Your task to perform on an android device: add a label to a message in the gmail app Image 0: 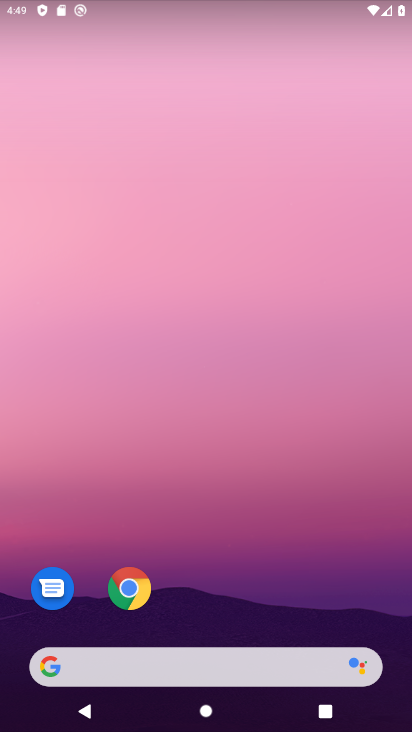
Step 0: drag from (214, 538) to (236, 18)
Your task to perform on an android device: add a label to a message in the gmail app Image 1: 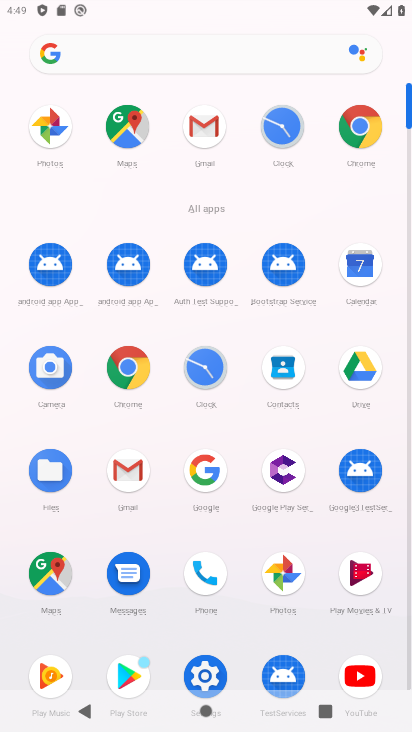
Step 1: click (204, 134)
Your task to perform on an android device: add a label to a message in the gmail app Image 2: 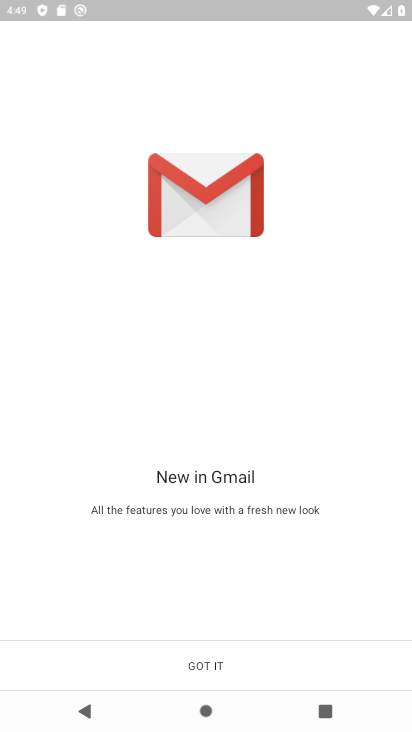
Step 2: click (189, 648)
Your task to perform on an android device: add a label to a message in the gmail app Image 3: 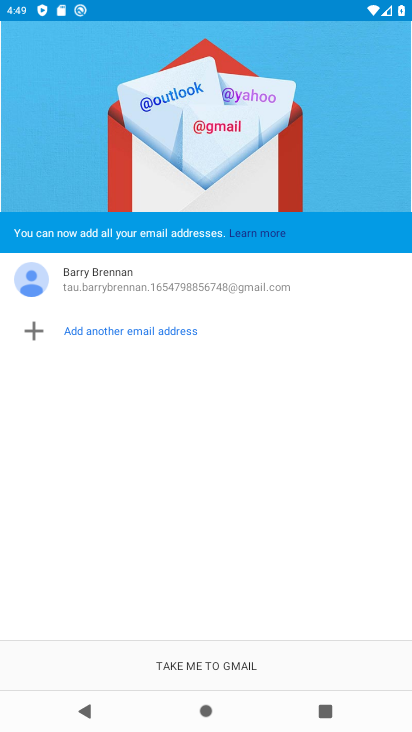
Step 3: click (188, 662)
Your task to perform on an android device: add a label to a message in the gmail app Image 4: 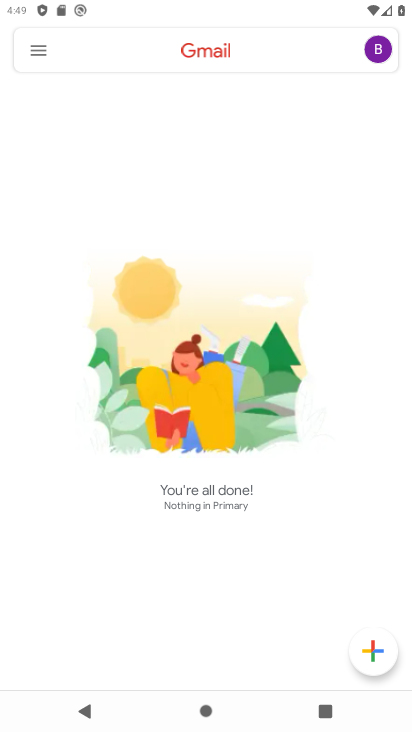
Step 4: click (48, 50)
Your task to perform on an android device: add a label to a message in the gmail app Image 5: 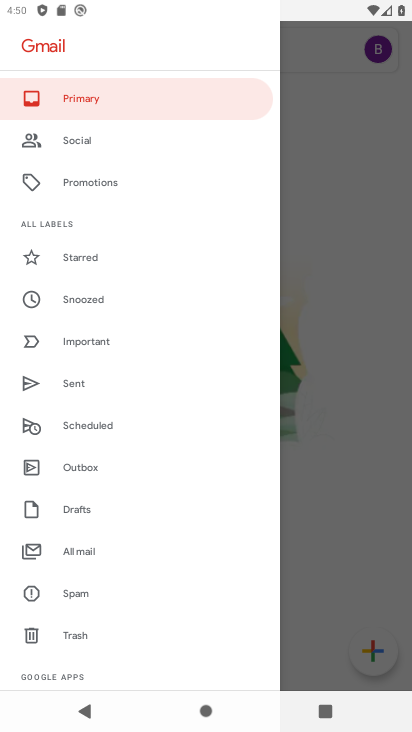
Step 5: click (88, 542)
Your task to perform on an android device: add a label to a message in the gmail app Image 6: 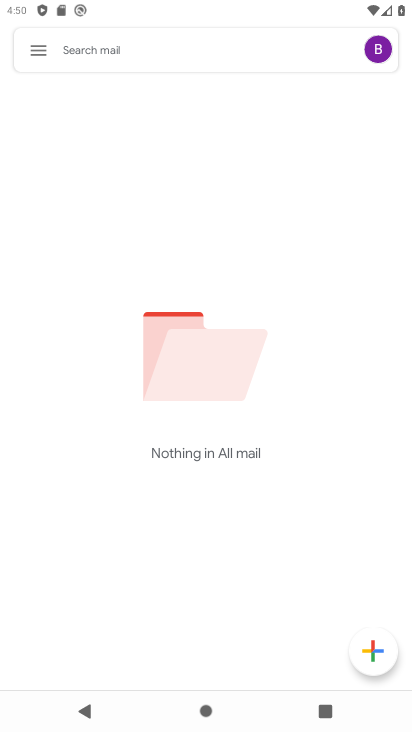
Step 6: task complete